Your task to perform on an android device: Show me the alarms in the clock app Image 0: 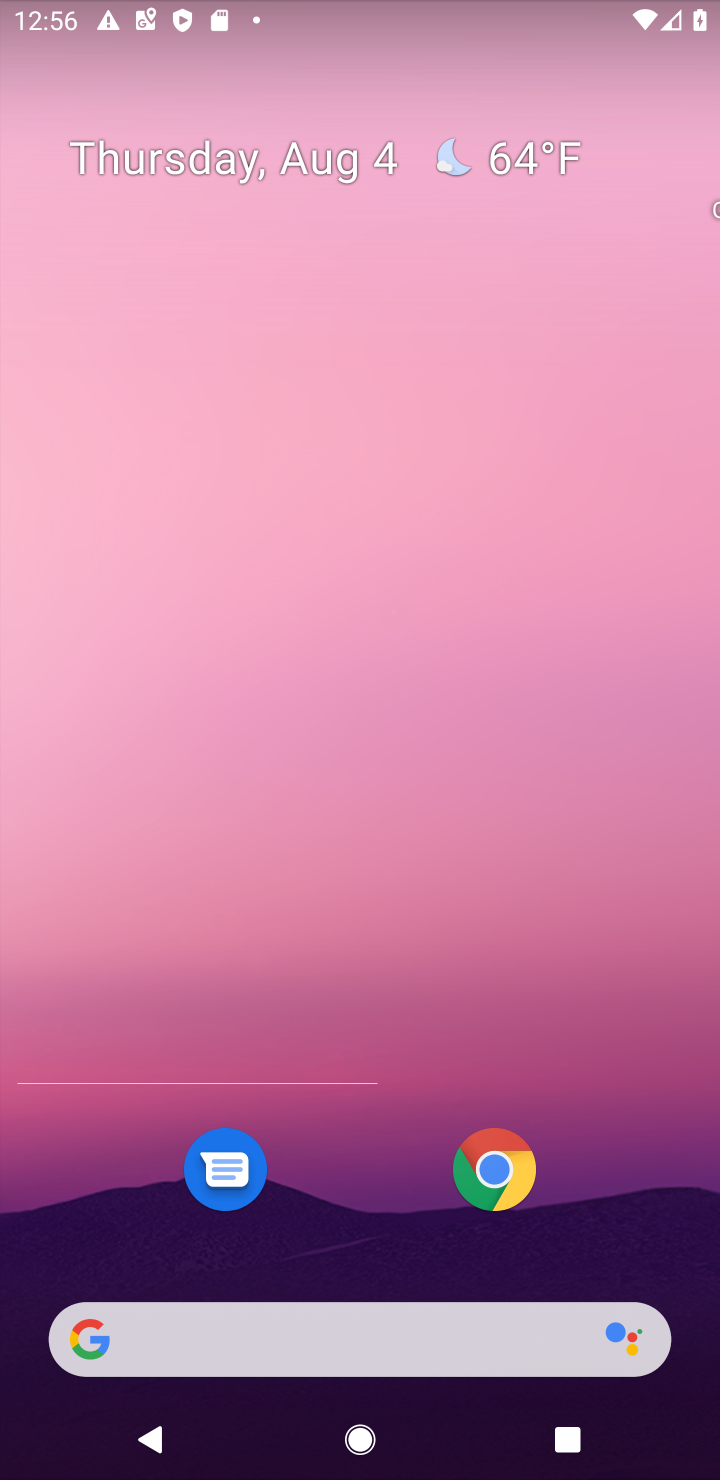
Step 0: press home button
Your task to perform on an android device: Show me the alarms in the clock app Image 1: 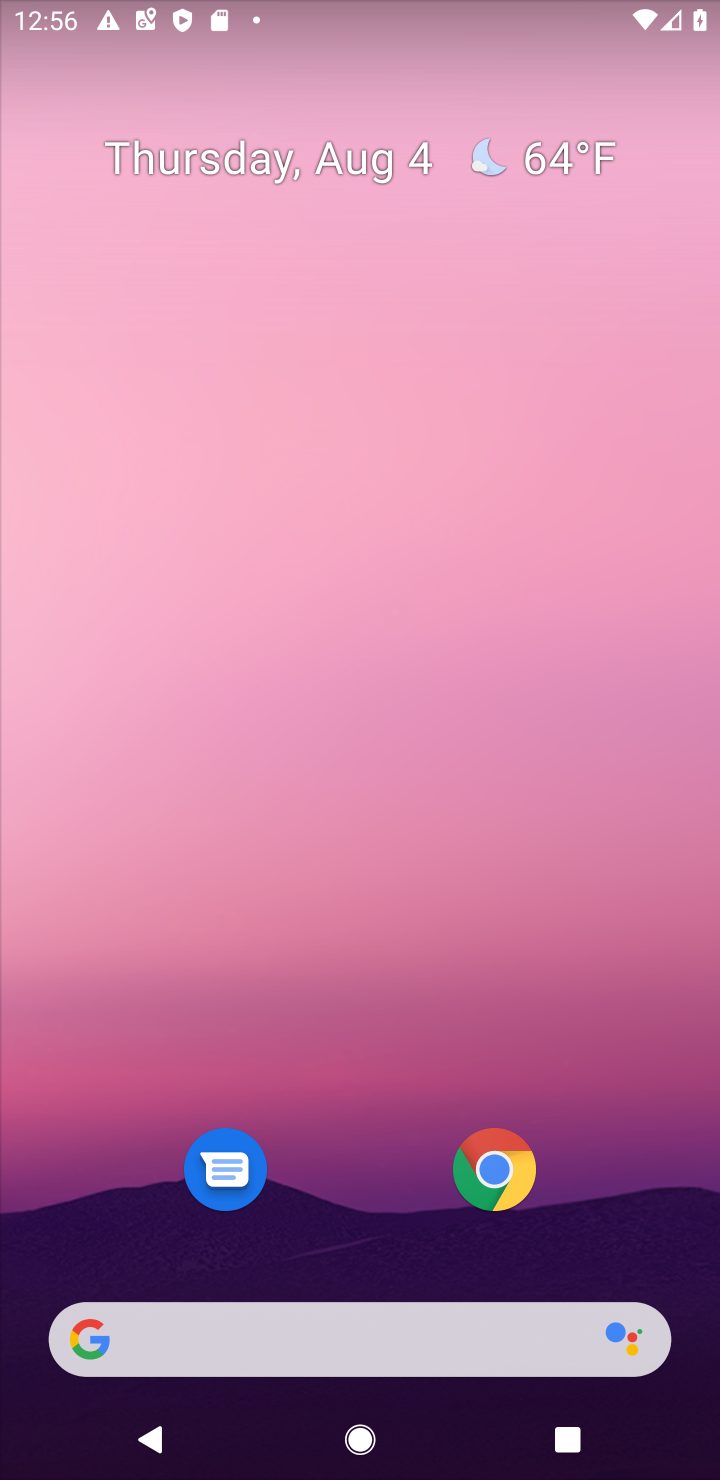
Step 1: drag from (338, 1001) to (324, 2)
Your task to perform on an android device: Show me the alarms in the clock app Image 2: 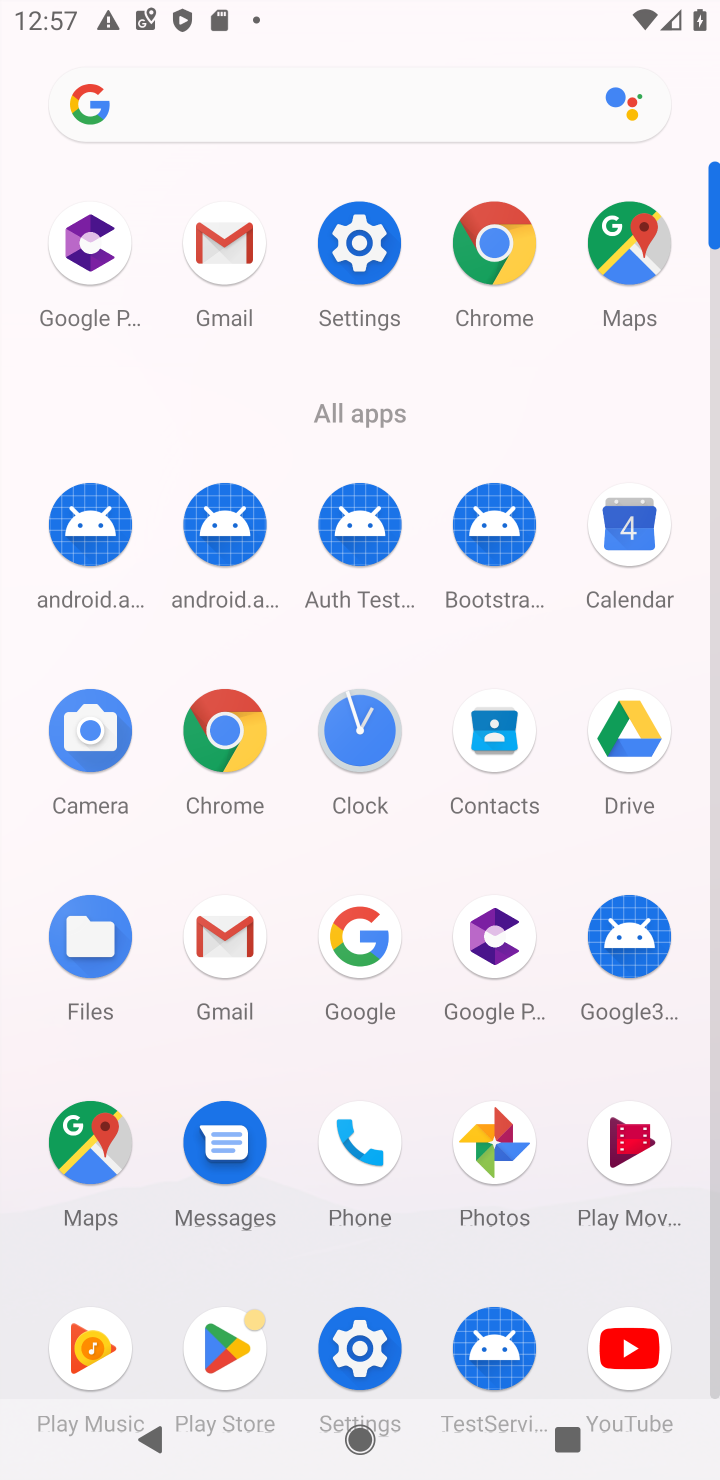
Step 2: click (364, 775)
Your task to perform on an android device: Show me the alarms in the clock app Image 3: 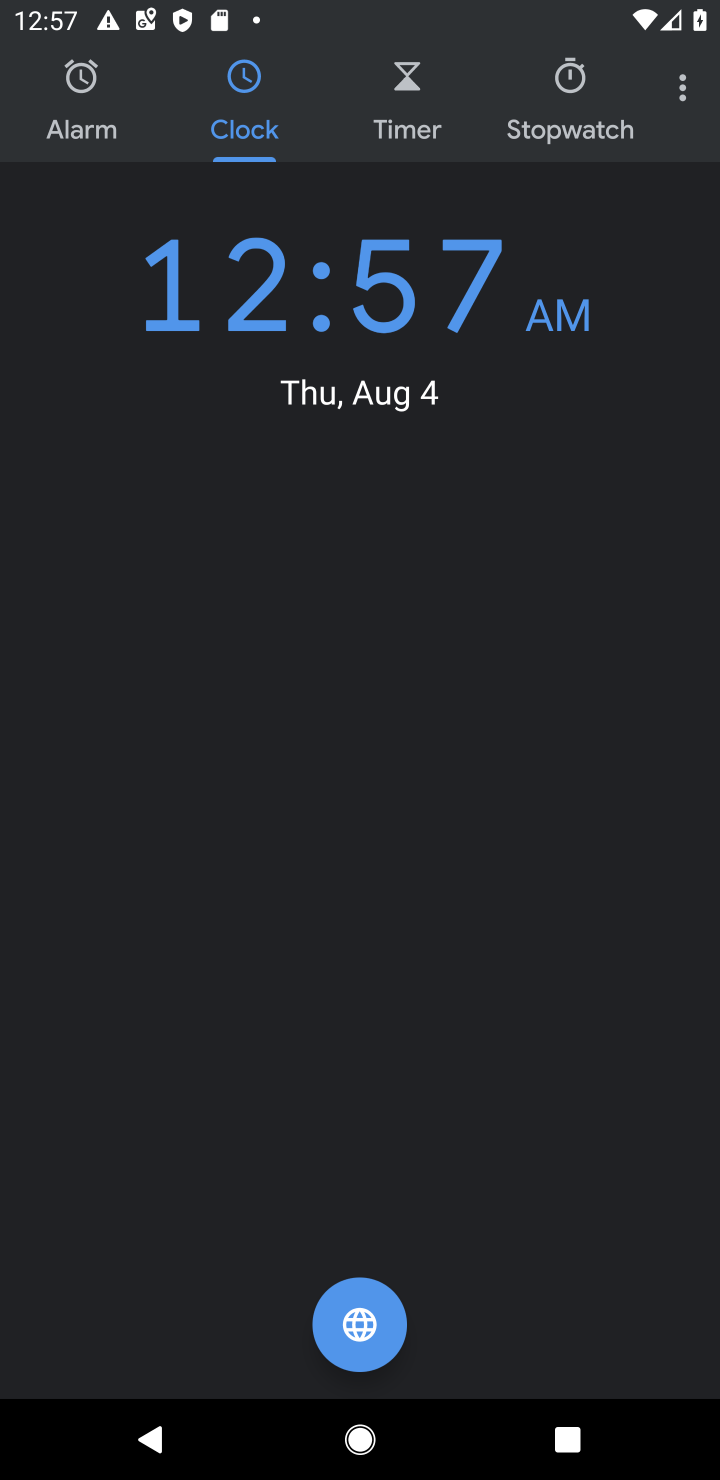
Step 3: click (103, 121)
Your task to perform on an android device: Show me the alarms in the clock app Image 4: 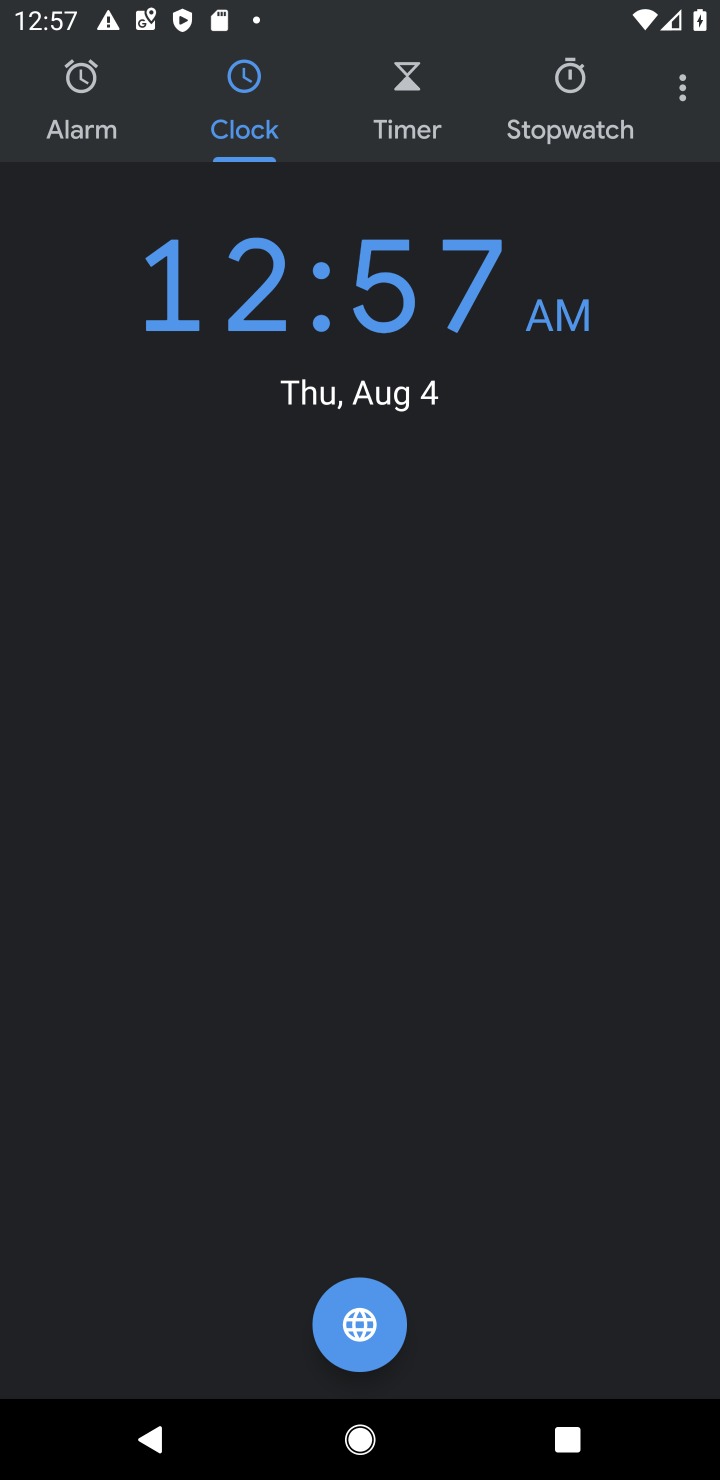
Step 4: click (97, 124)
Your task to perform on an android device: Show me the alarms in the clock app Image 5: 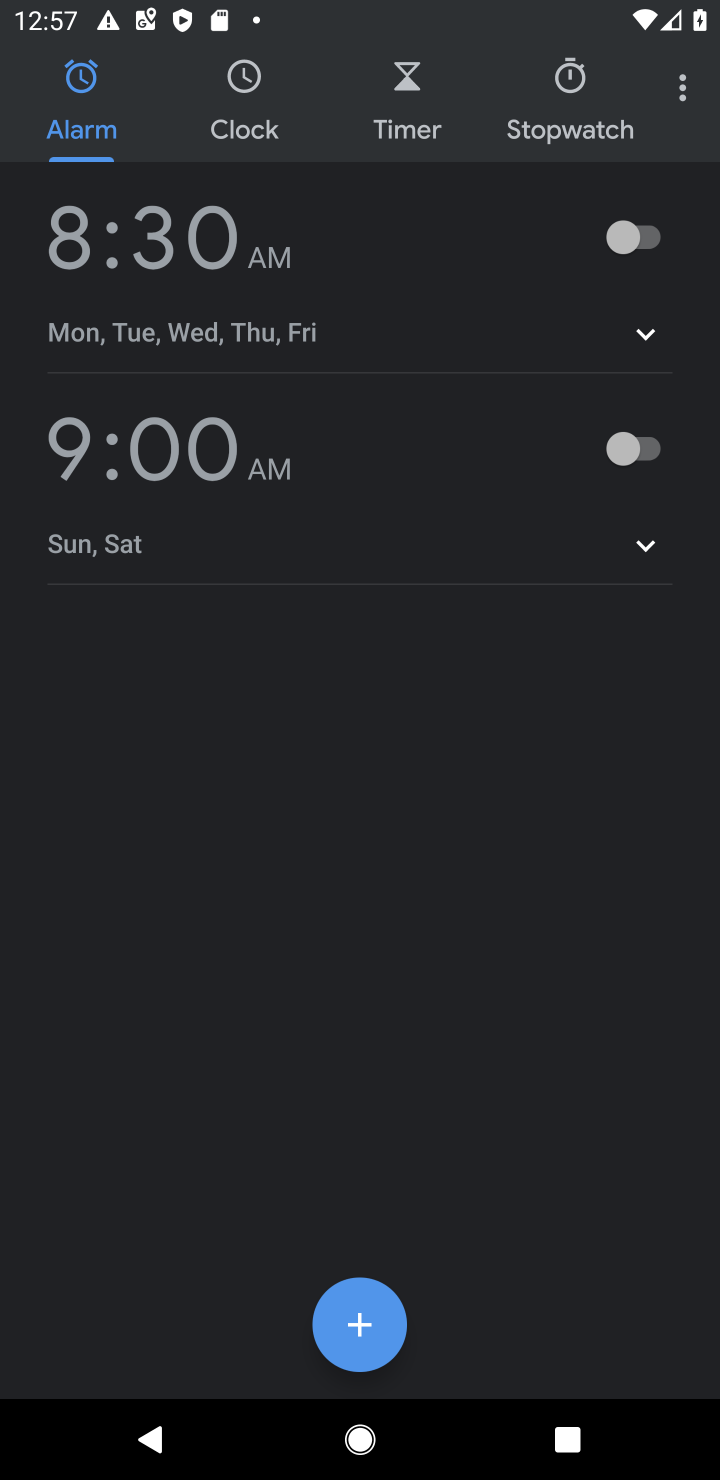
Step 5: task complete